Your task to perform on an android device: toggle pop-ups in chrome Image 0: 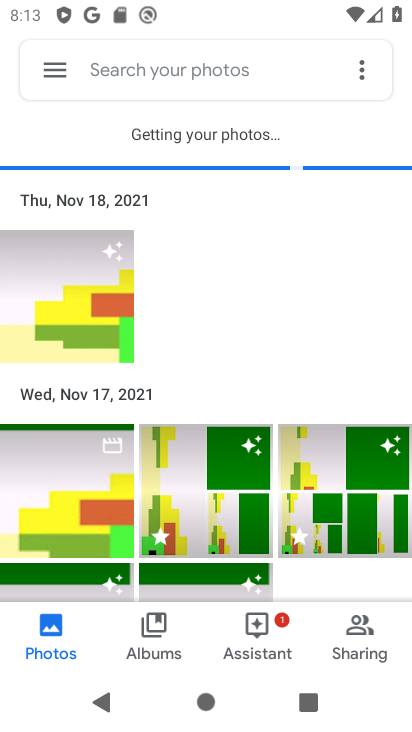
Step 0: press home button
Your task to perform on an android device: toggle pop-ups in chrome Image 1: 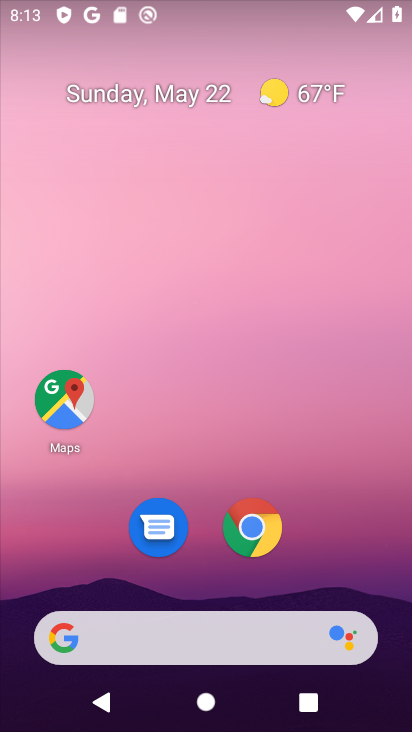
Step 1: click (251, 520)
Your task to perform on an android device: toggle pop-ups in chrome Image 2: 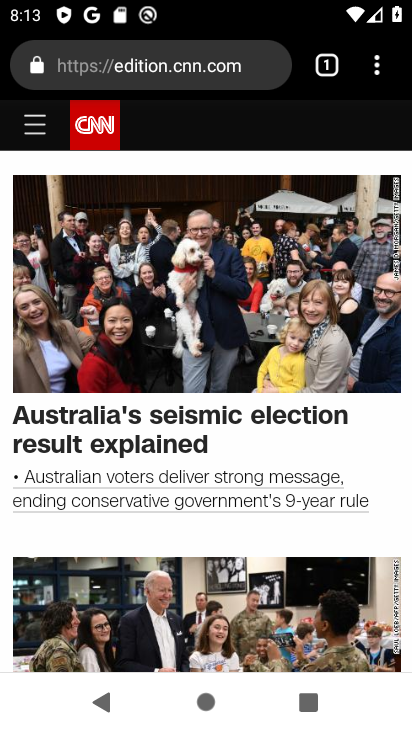
Step 2: click (375, 59)
Your task to perform on an android device: toggle pop-ups in chrome Image 3: 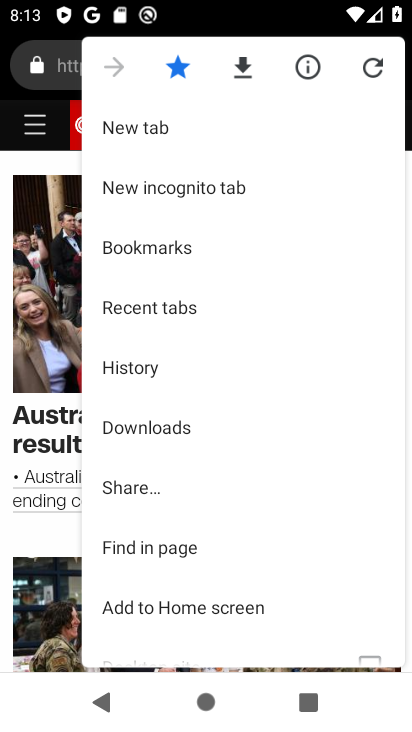
Step 3: drag from (288, 602) to (282, 68)
Your task to perform on an android device: toggle pop-ups in chrome Image 4: 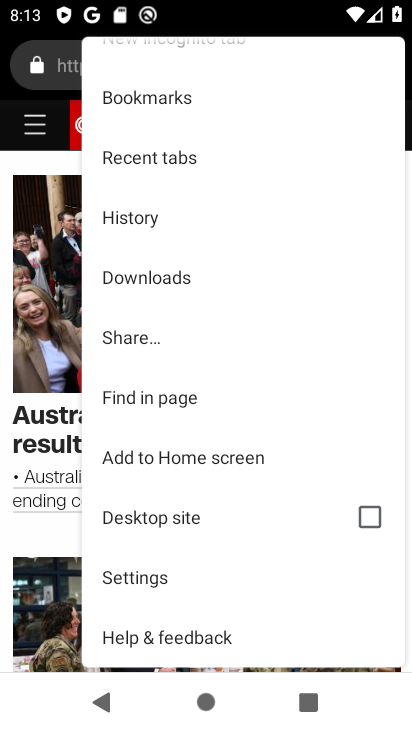
Step 4: click (181, 574)
Your task to perform on an android device: toggle pop-ups in chrome Image 5: 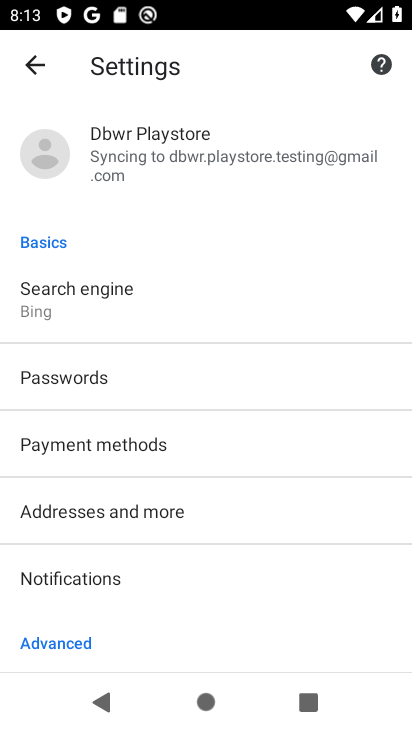
Step 5: drag from (200, 626) to (191, 90)
Your task to perform on an android device: toggle pop-ups in chrome Image 6: 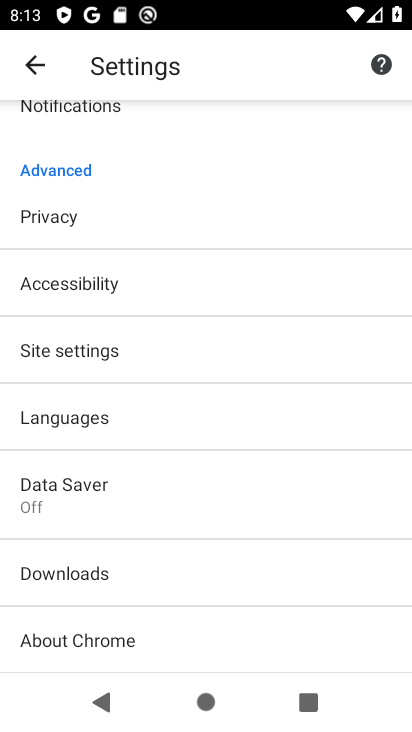
Step 6: click (153, 353)
Your task to perform on an android device: toggle pop-ups in chrome Image 7: 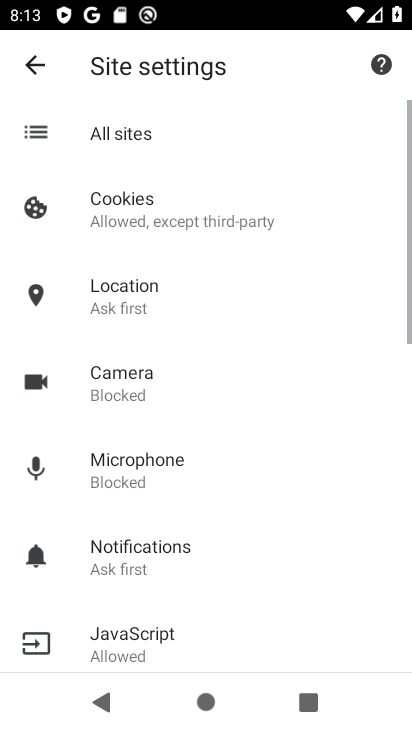
Step 7: drag from (230, 629) to (266, 72)
Your task to perform on an android device: toggle pop-ups in chrome Image 8: 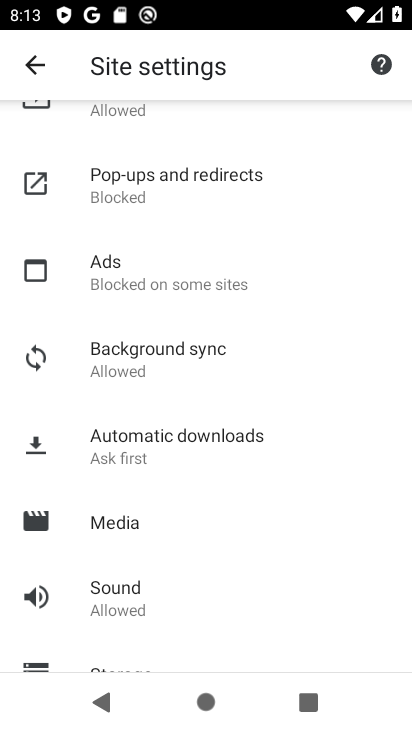
Step 8: click (172, 185)
Your task to perform on an android device: toggle pop-ups in chrome Image 9: 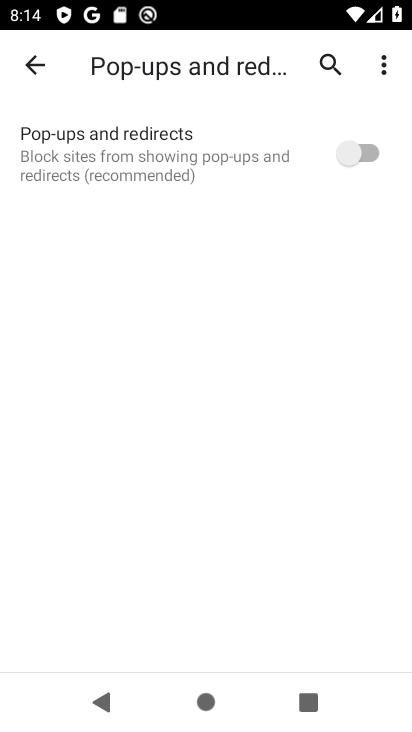
Step 9: click (362, 153)
Your task to perform on an android device: toggle pop-ups in chrome Image 10: 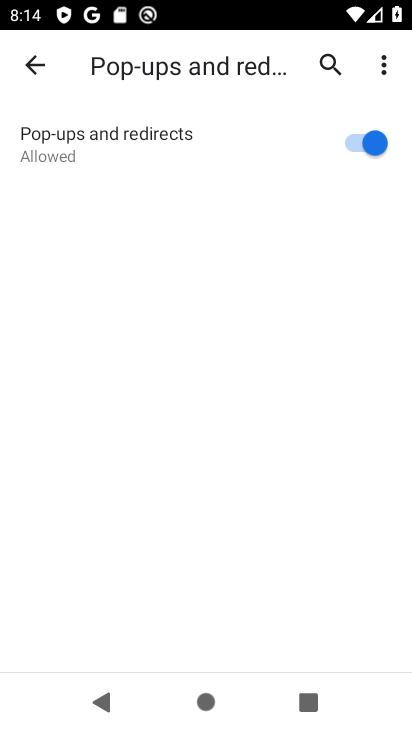
Step 10: task complete